Your task to perform on an android device: Open location settings Image 0: 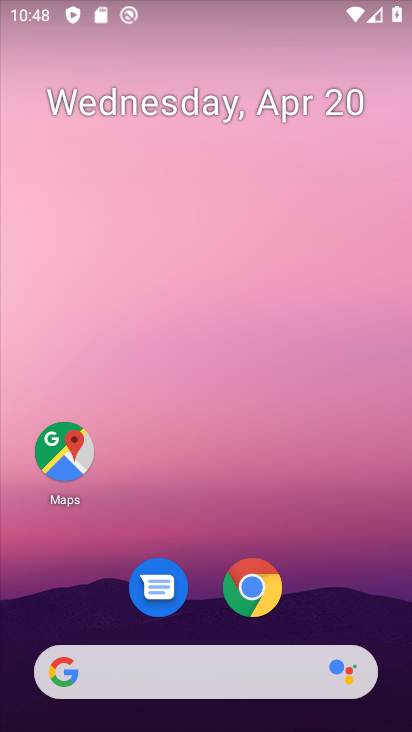
Step 0: drag from (348, 536) to (249, 5)
Your task to perform on an android device: Open location settings Image 1: 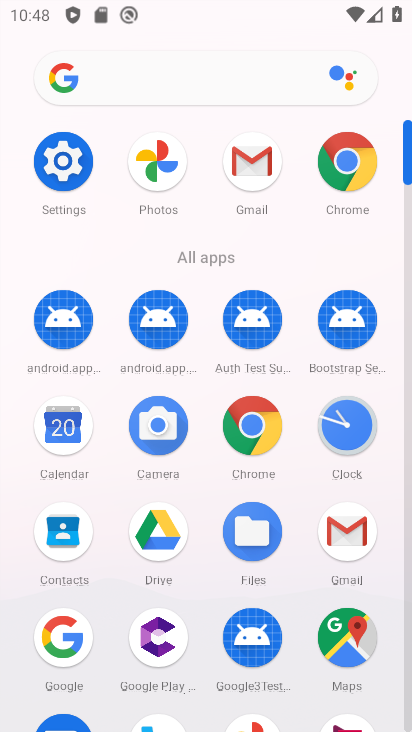
Step 1: drag from (19, 554) to (5, 275)
Your task to perform on an android device: Open location settings Image 2: 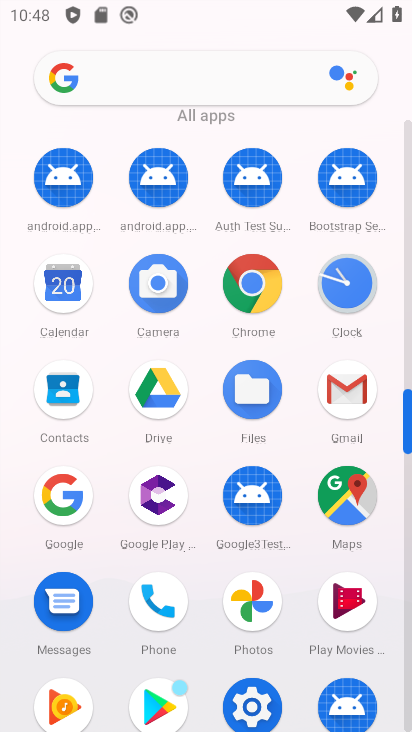
Step 2: click (250, 711)
Your task to perform on an android device: Open location settings Image 3: 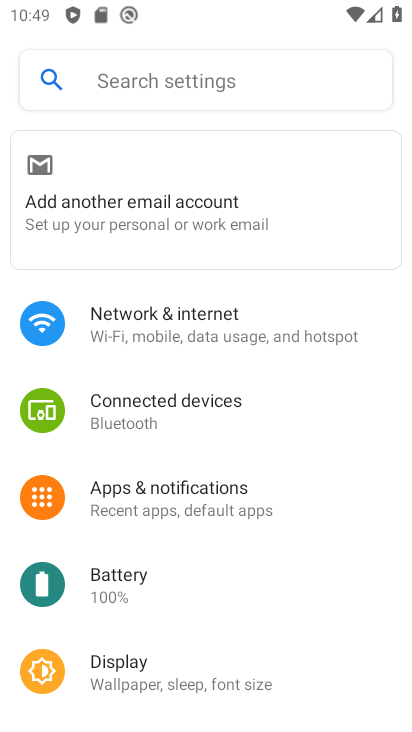
Step 3: drag from (311, 556) to (325, 259)
Your task to perform on an android device: Open location settings Image 4: 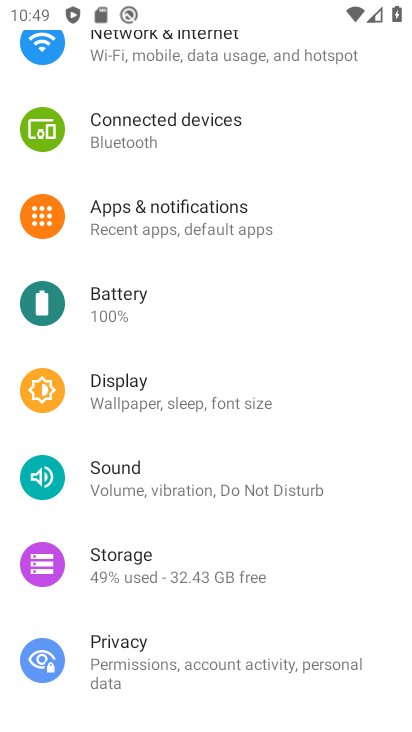
Step 4: drag from (308, 516) to (313, 153)
Your task to perform on an android device: Open location settings Image 5: 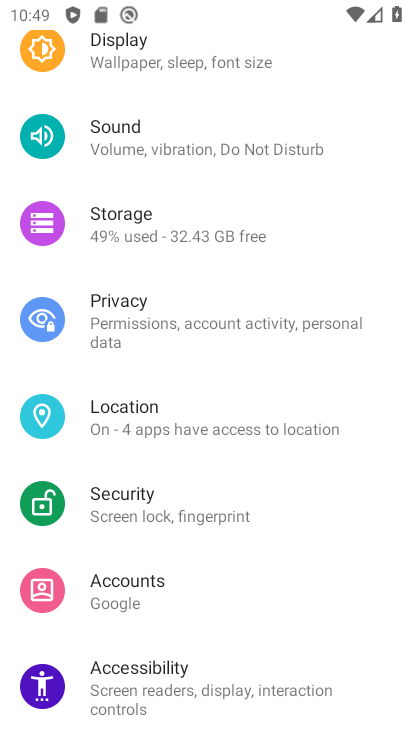
Step 5: click (177, 426)
Your task to perform on an android device: Open location settings Image 6: 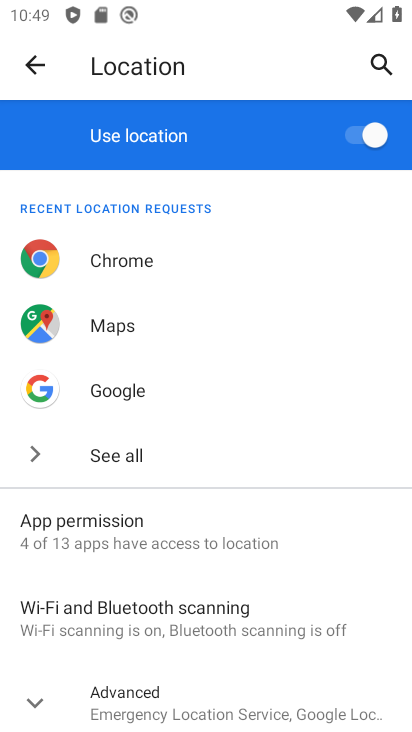
Step 6: drag from (245, 473) to (255, 180)
Your task to perform on an android device: Open location settings Image 7: 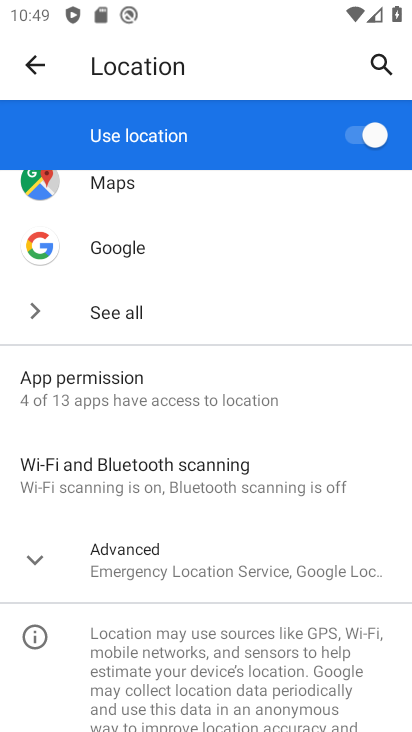
Step 7: click (65, 557)
Your task to perform on an android device: Open location settings Image 8: 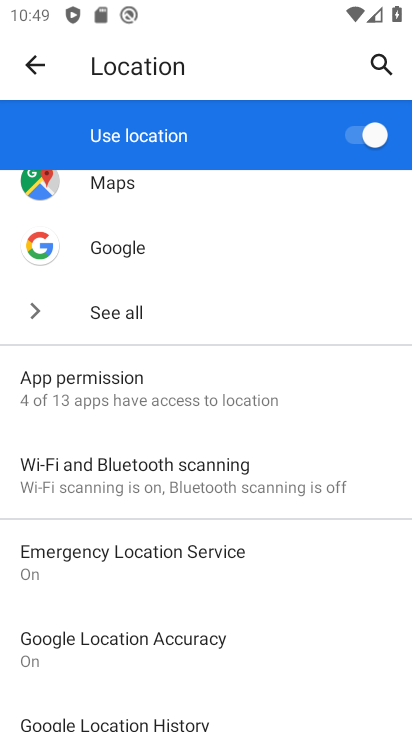
Step 8: task complete